Your task to perform on an android device: Open internet settings Image 0: 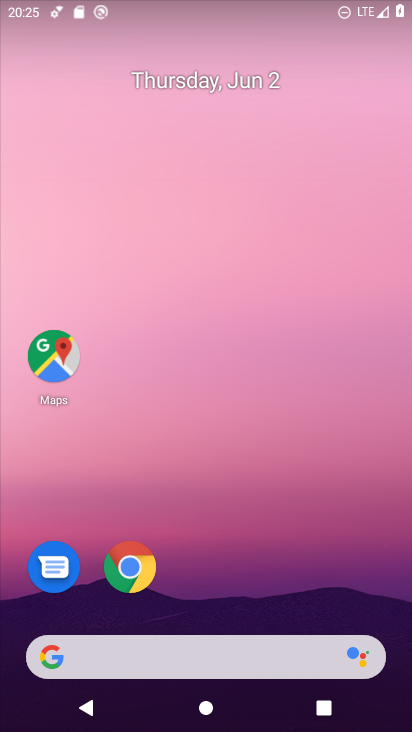
Step 0: drag from (211, 610) to (337, 118)
Your task to perform on an android device: Open internet settings Image 1: 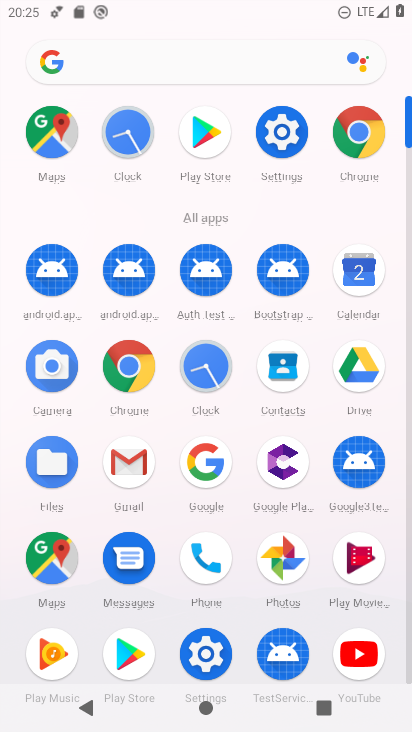
Step 1: click (198, 665)
Your task to perform on an android device: Open internet settings Image 2: 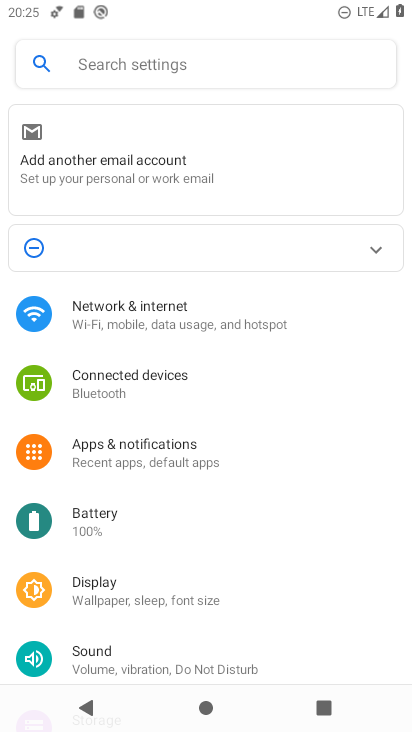
Step 2: click (254, 316)
Your task to perform on an android device: Open internet settings Image 3: 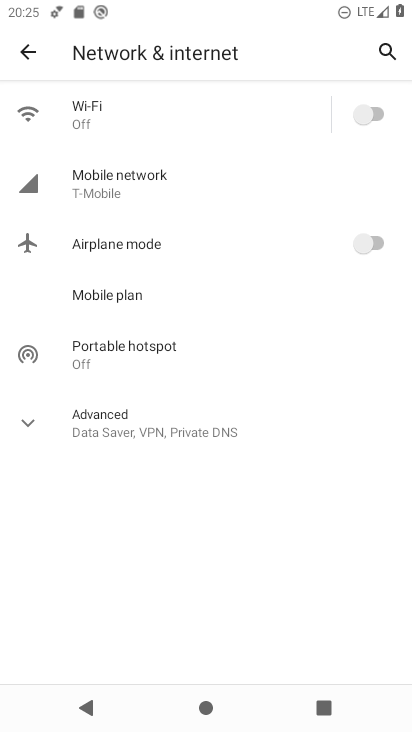
Step 3: click (233, 420)
Your task to perform on an android device: Open internet settings Image 4: 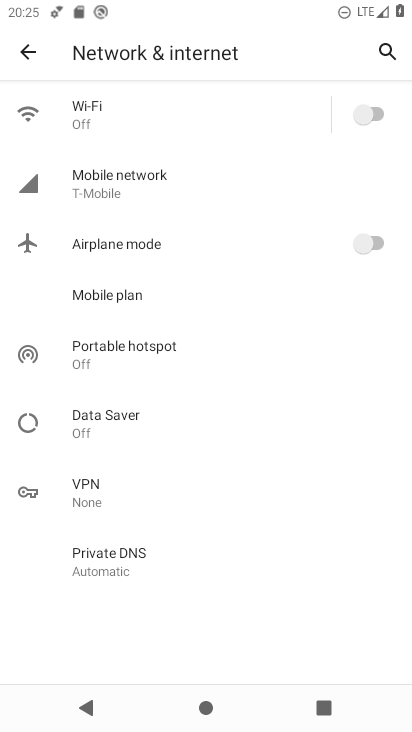
Step 4: click (163, 175)
Your task to perform on an android device: Open internet settings Image 5: 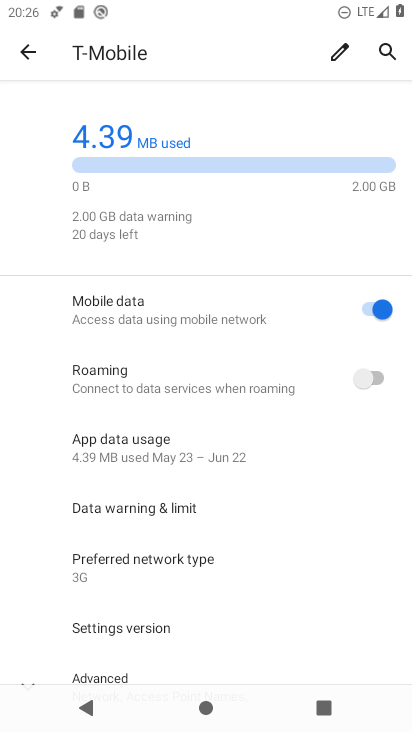
Step 5: task complete